Your task to perform on an android device: What's on the menu at In-N-Out? Image 0: 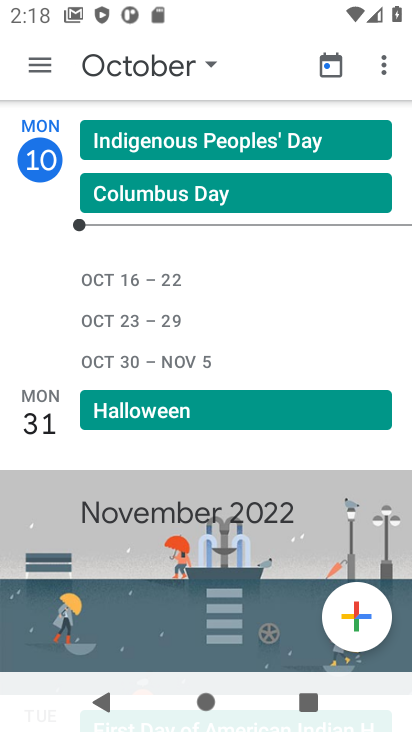
Step 0: press home button
Your task to perform on an android device: What's on the menu at In-N-Out? Image 1: 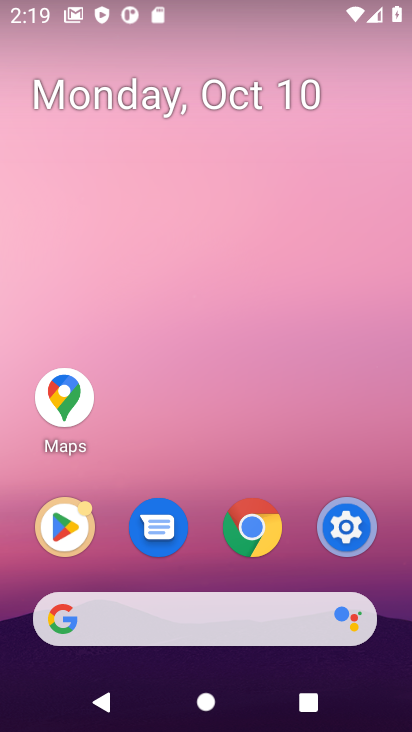
Step 1: click (200, 617)
Your task to perform on an android device: What's on the menu at In-N-Out? Image 2: 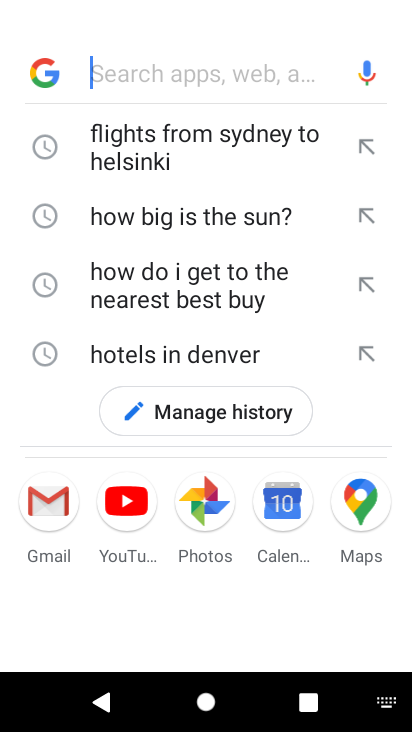
Step 2: type "What's on the menu at In-N-Out"
Your task to perform on an android device: What's on the menu at In-N-Out? Image 3: 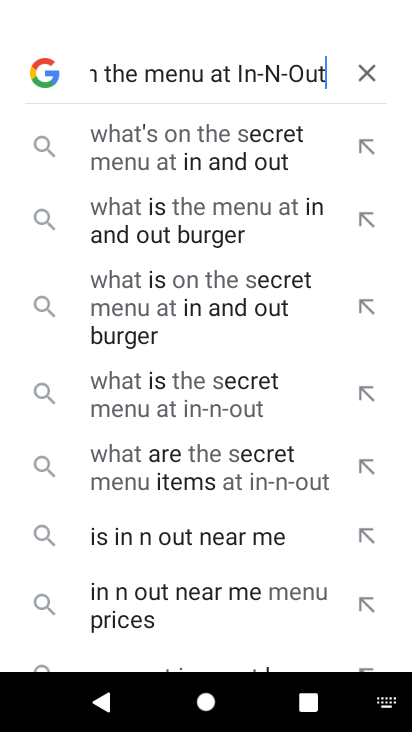
Step 3: press enter
Your task to perform on an android device: What's on the menu at In-N-Out? Image 4: 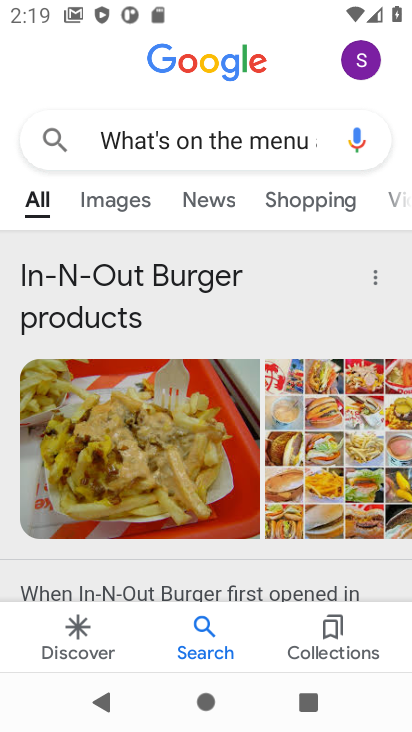
Step 4: drag from (276, 510) to (273, 373)
Your task to perform on an android device: What's on the menu at In-N-Out? Image 5: 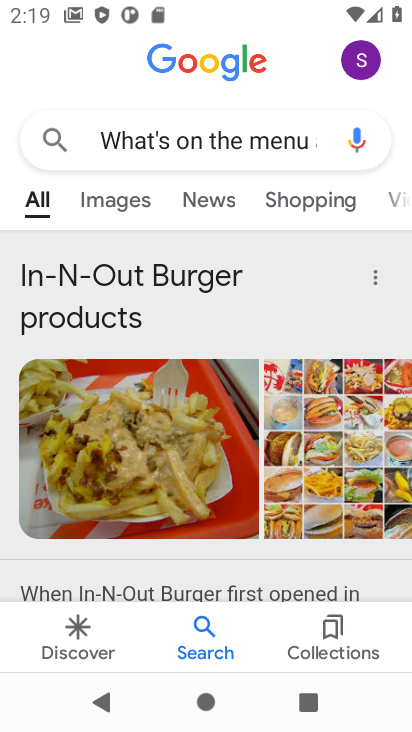
Step 5: drag from (242, 556) to (253, 279)
Your task to perform on an android device: What's on the menu at In-N-Out? Image 6: 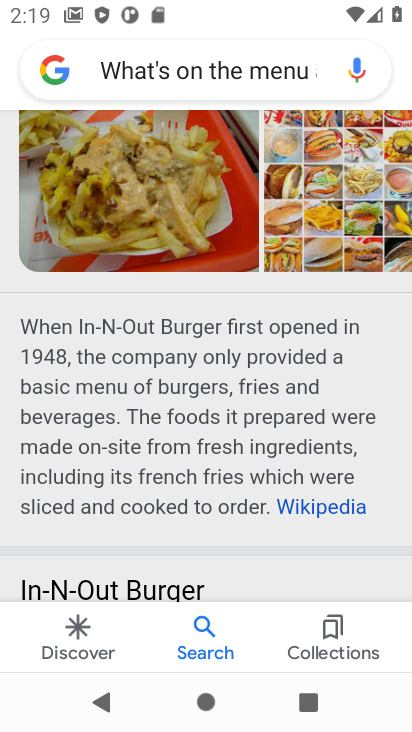
Step 6: drag from (218, 518) to (265, 254)
Your task to perform on an android device: What's on the menu at In-N-Out? Image 7: 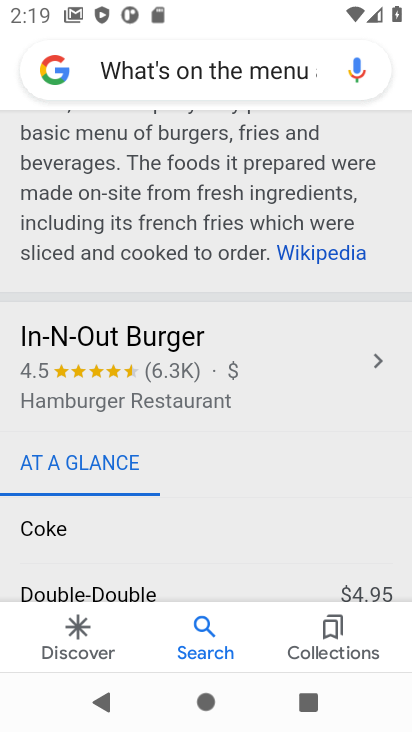
Step 7: drag from (256, 491) to (277, 350)
Your task to perform on an android device: What's on the menu at In-N-Out? Image 8: 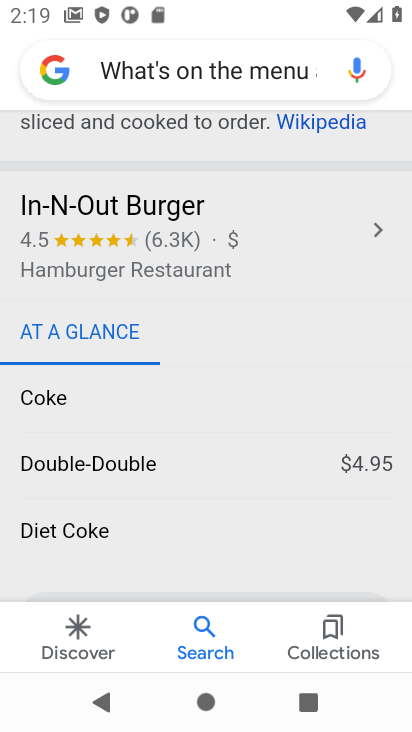
Step 8: drag from (269, 494) to (281, 344)
Your task to perform on an android device: What's on the menu at In-N-Out? Image 9: 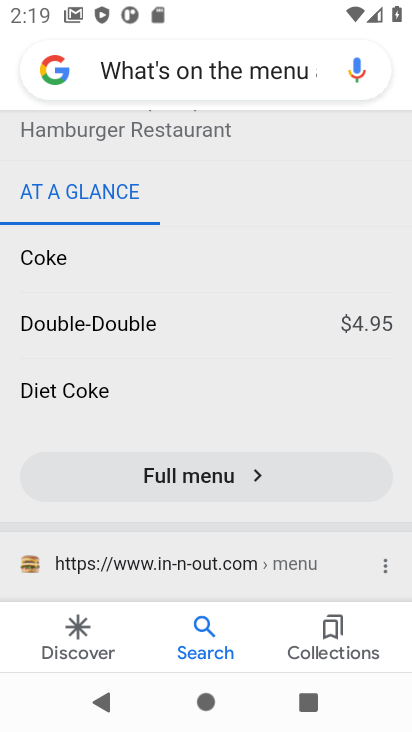
Step 9: click (215, 475)
Your task to perform on an android device: What's on the menu at In-N-Out? Image 10: 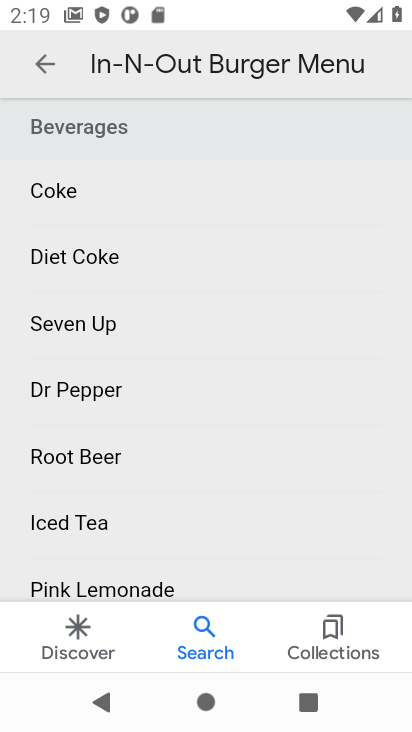
Step 10: task complete